Your task to perform on an android device: toggle notifications settings in the gmail app Image 0: 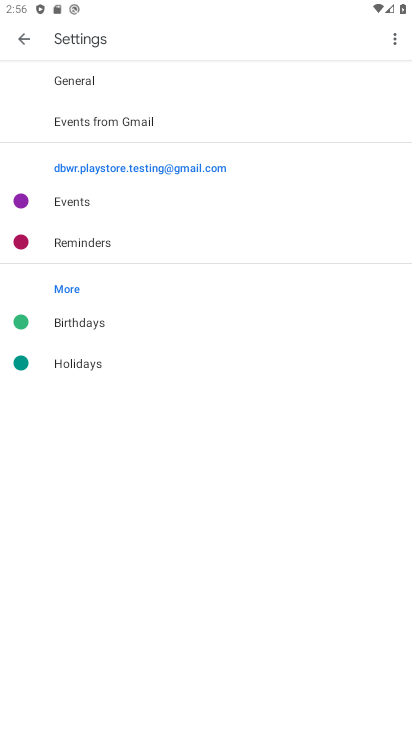
Step 0: press back button
Your task to perform on an android device: toggle notifications settings in the gmail app Image 1: 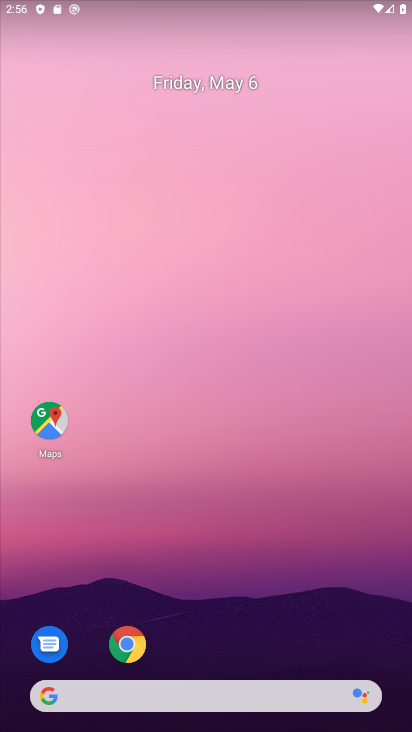
Step 1: drag from (260, 610) to (170, 104)
Your task to perform on an android device: toggle notifications settings in the gmail app Image 2: 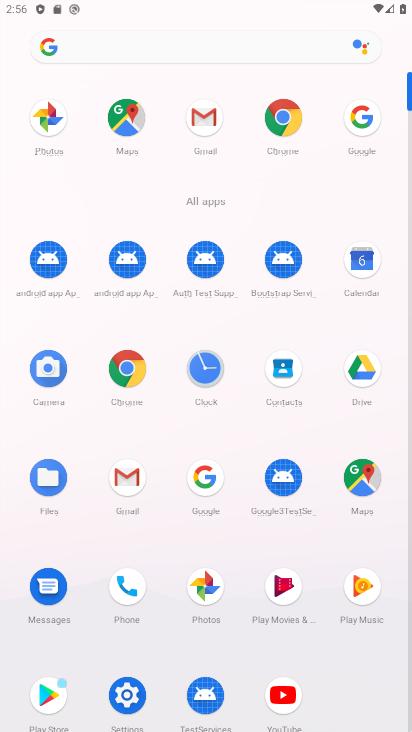
Step 2: click (203, 113)
Your task to perform on an android device: toggle notifications settings in the gmail app Image 3: 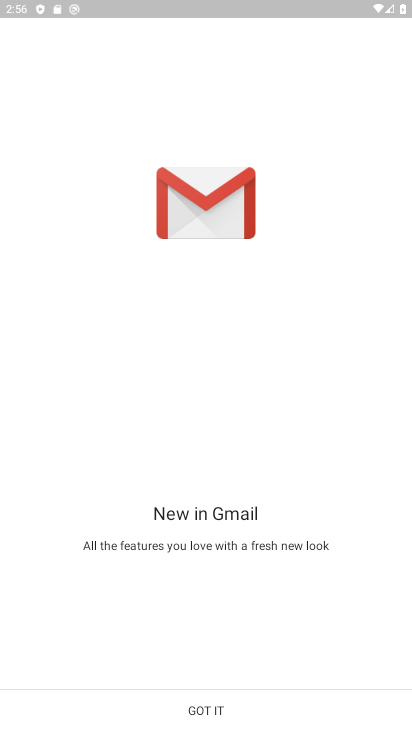
Step 3: click (203, 709)
Your task to perform on an android device: toggle notifications settings in the gmail app Image 4: 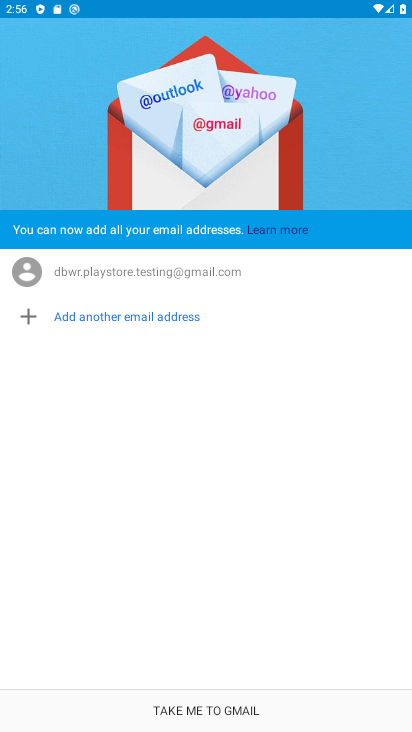
Step 4: click (185, 701)
Your task to perform on an android device: toggle notifications settings in the gmail app Image 5: 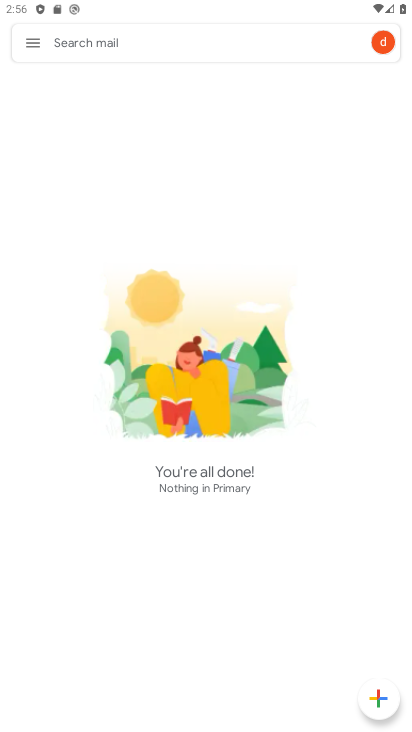
Step 5: click (34, 40)
Your task to perform on an android device: toggle notifications settings in the gmail app Image 6: 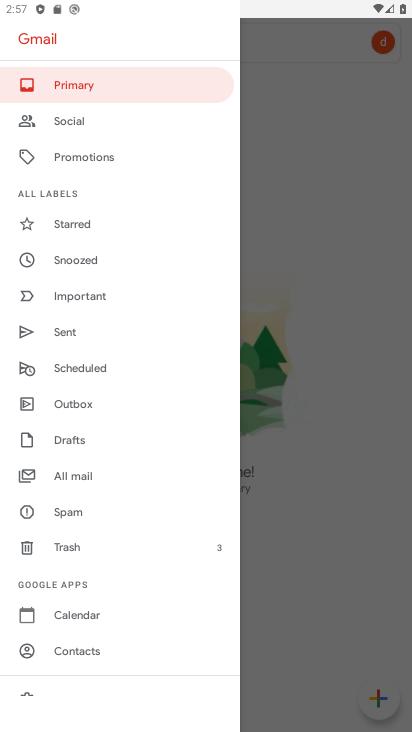
Step 6: drag from (97, 525) to (113, 452)
Your task to perform on an android device: toggle notifications settings in the gmail app Image 7: 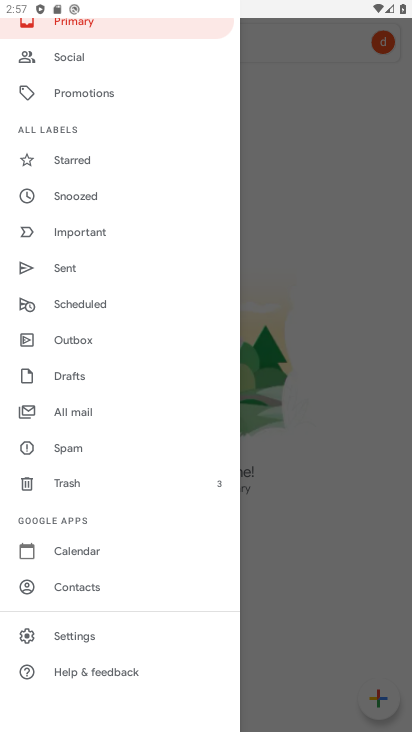
Step 7: click (65, 634)
Your task to perform on an android device: toggle notifications settings in the gmail app Image 8: 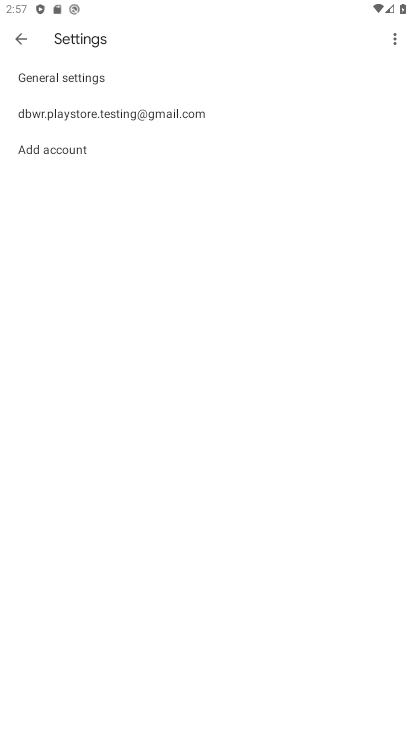
Step 8: click (58, 109)
Your task to perform on an android device: toggle notifications settings in the gmail app Image 9: 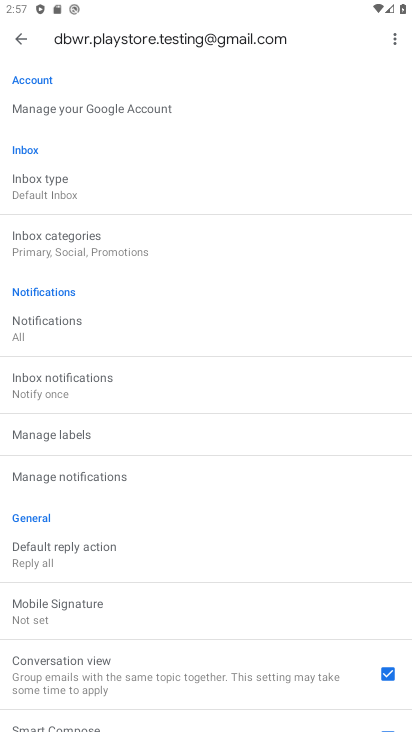
Step 9: click (92, 474)
Your task to perform on an android device: toggle notifications settings in the gmail app Image 10: 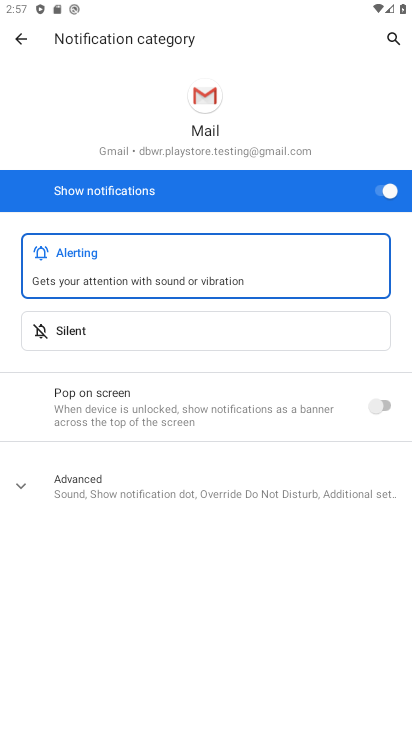
Step 10: click (391, 191)
Your task to perform on an android device: toggle notifications settings in the gmail app Image 11: 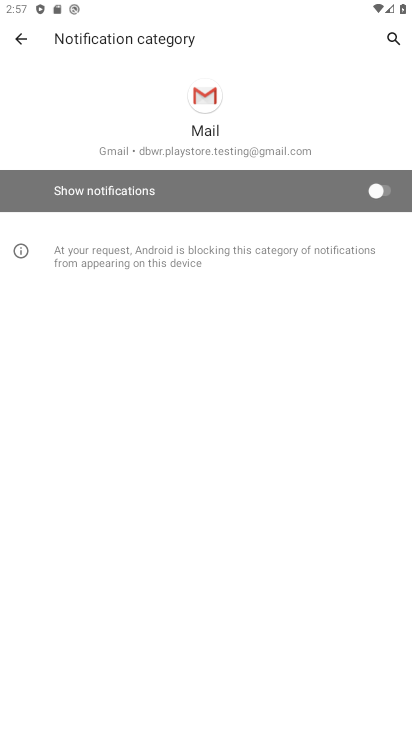
Step 11: task complete